Your task to perform on an android device: Go to Amazon Image 0: 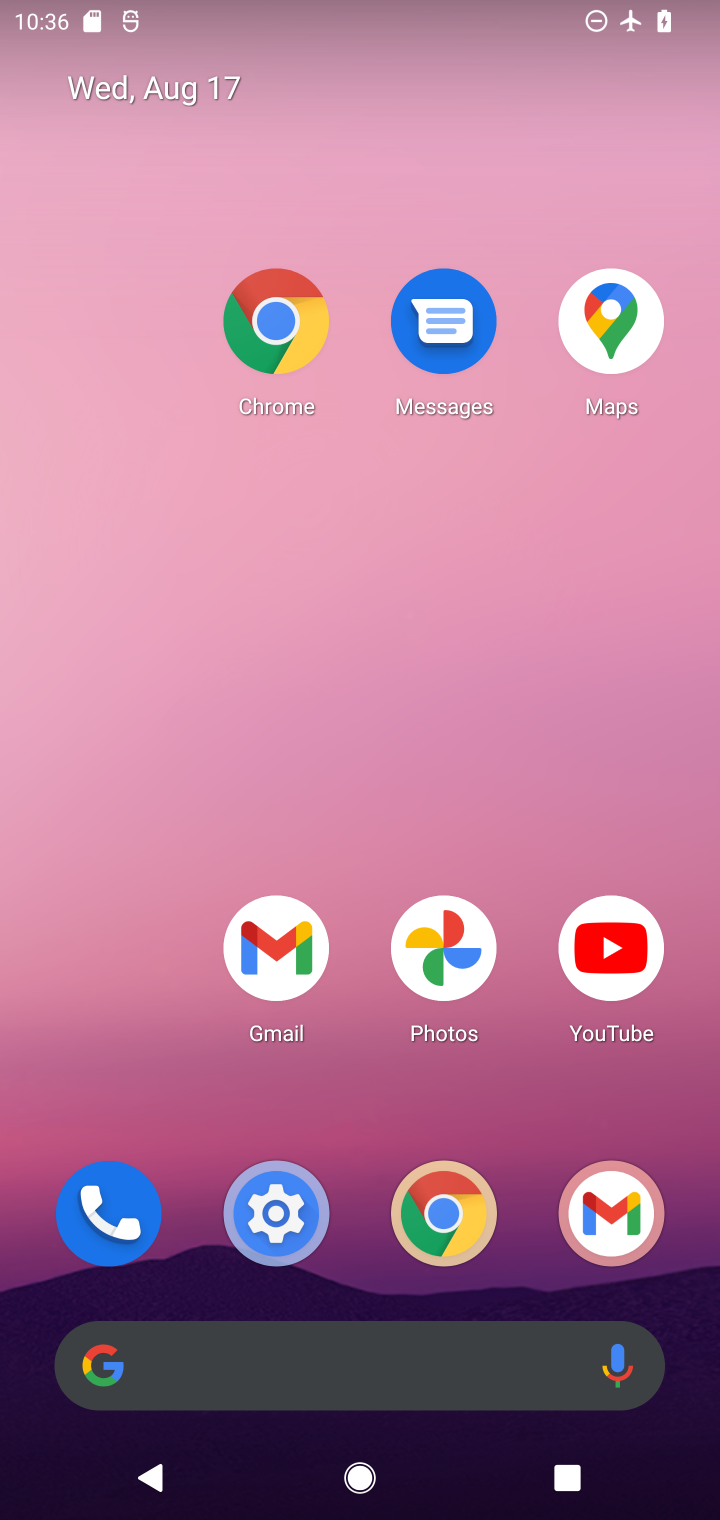
Step 0: drag from (356, 1293) to (445, 232)
Your task to perform on an android device: Go to Amazon Image 1: 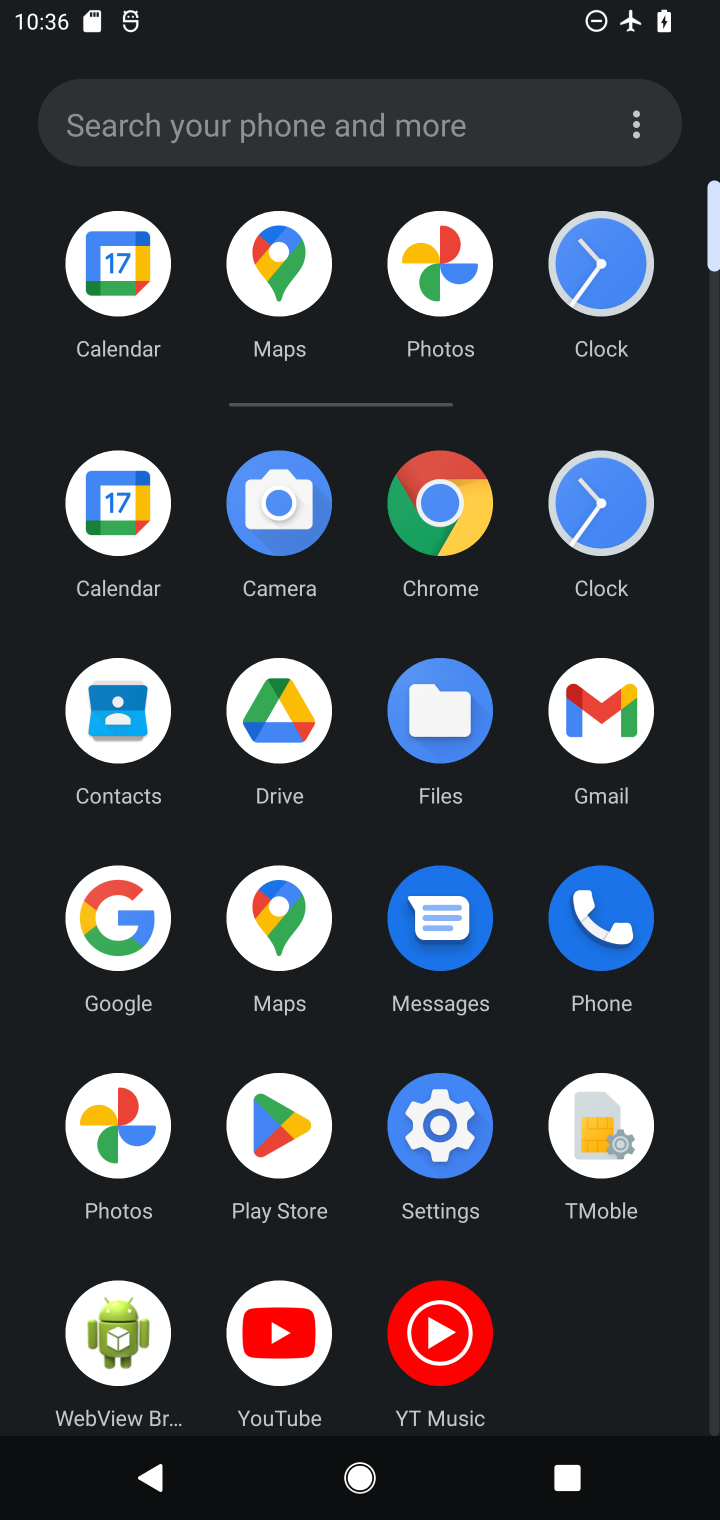
Step 1: click (452, 1108)
Your task to perform on an android device: Go to Amazon Image 2: 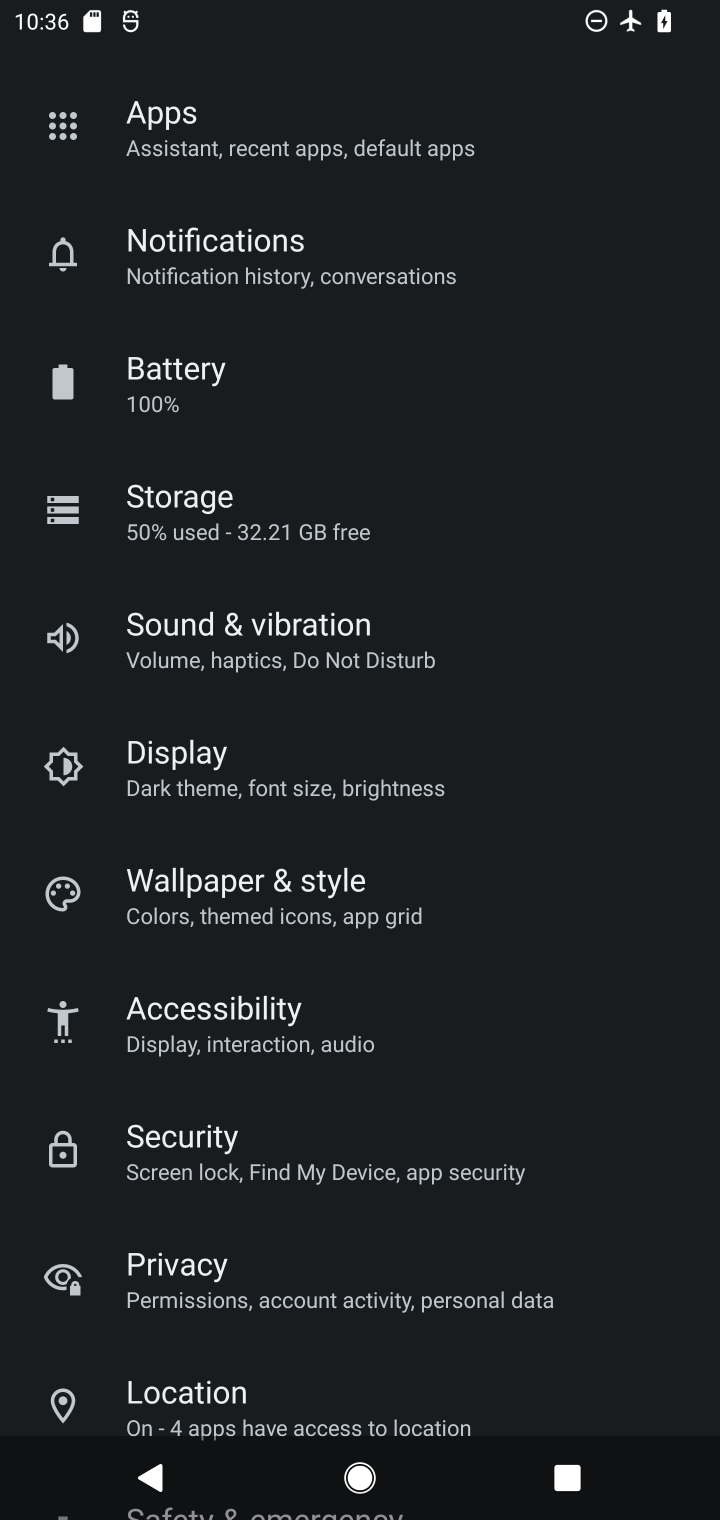
Step 2: press home button
Your task to perform on an android device: Go to Amazon Image 3: 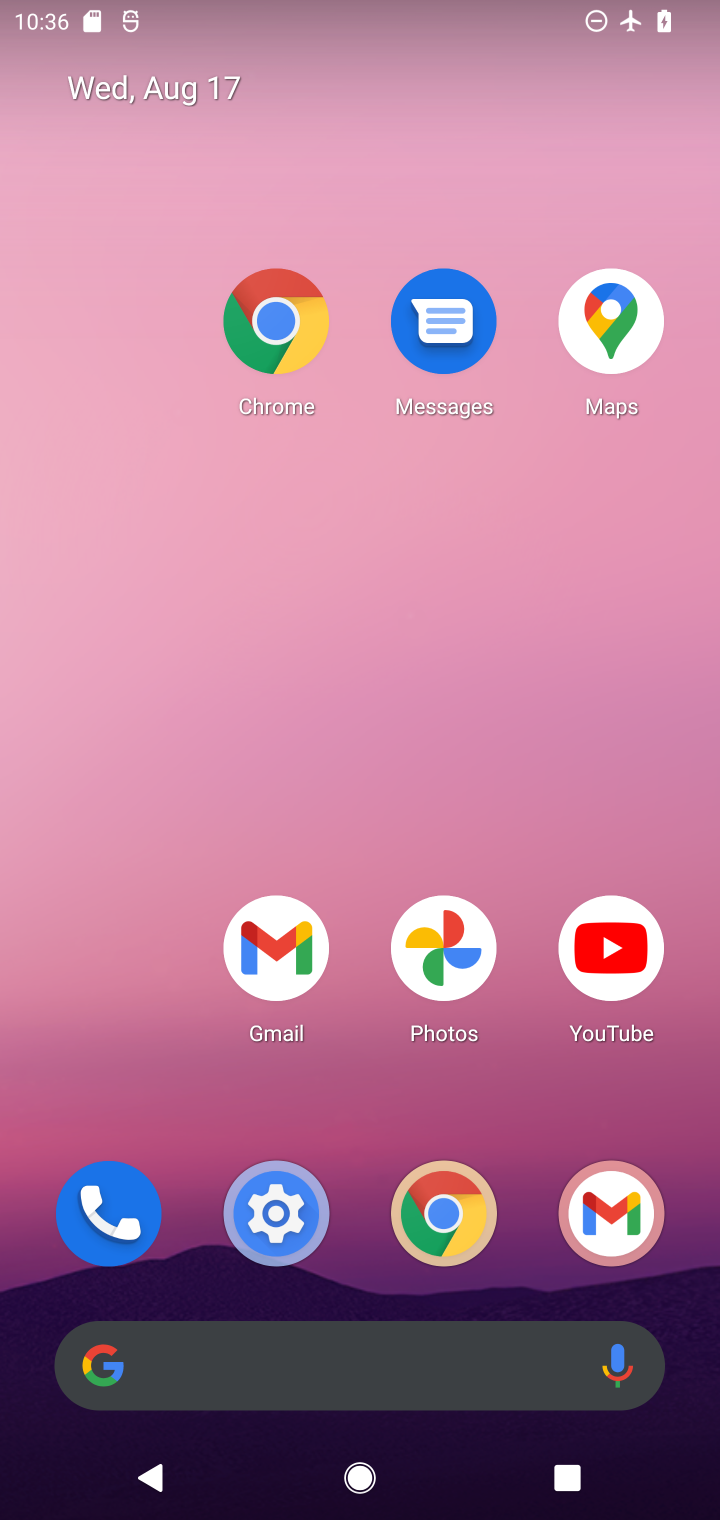
Step 3: click (480, 1233)
Your task to perform on an android device: Go to Amazon Image 4: 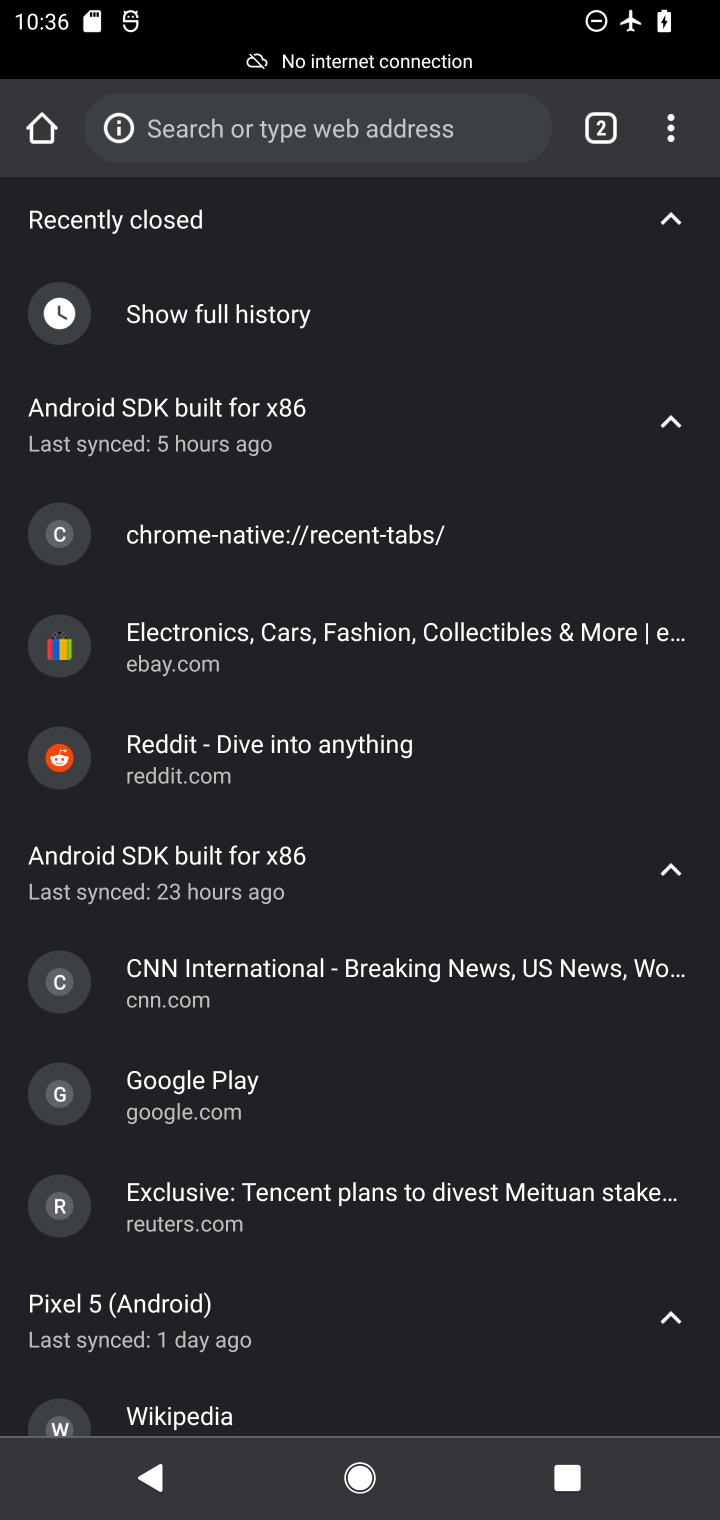
Step 4: click (291, 157)
Your task to perform on an android device: Go to Amazon Image 5: 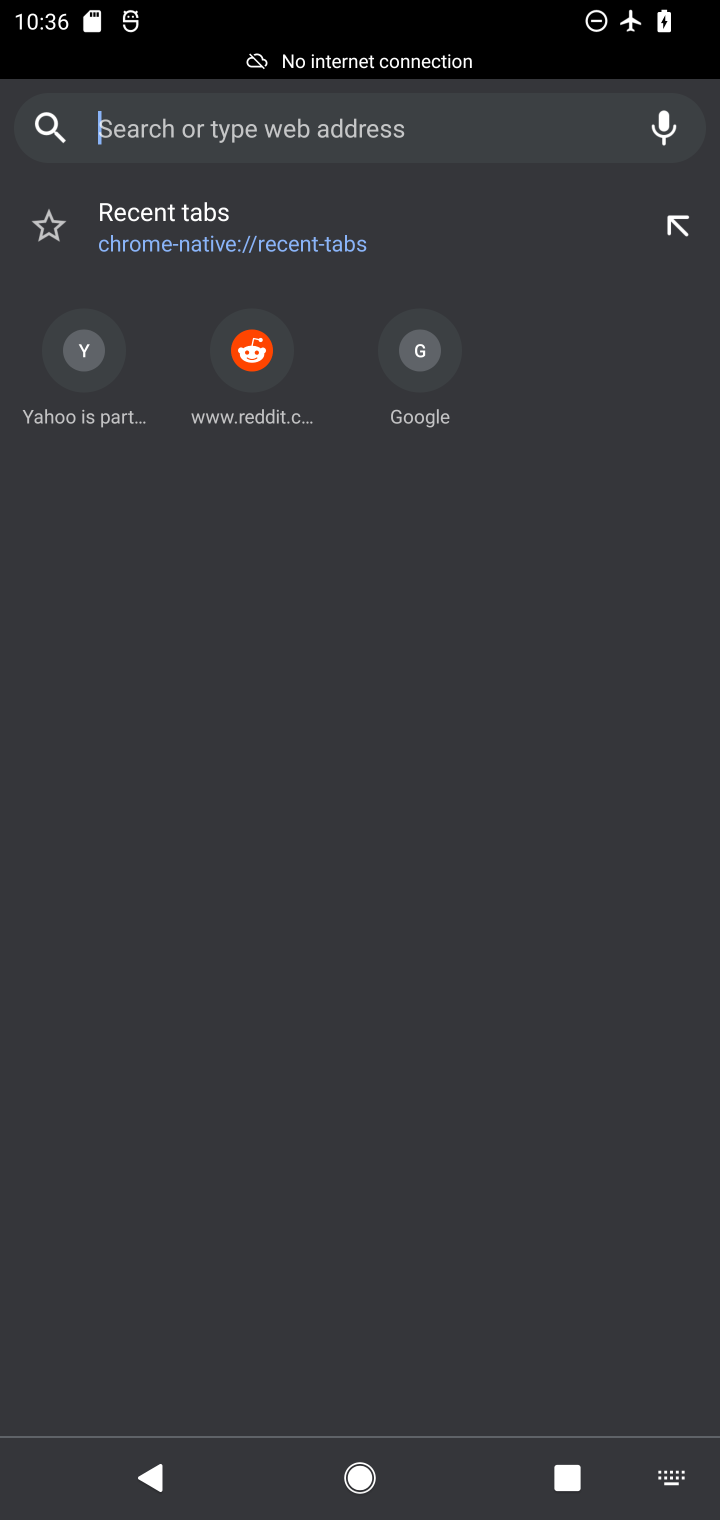
Step 5: task complete